Your task to perform on an android device: Show me popular games on the Play Store Image 0: 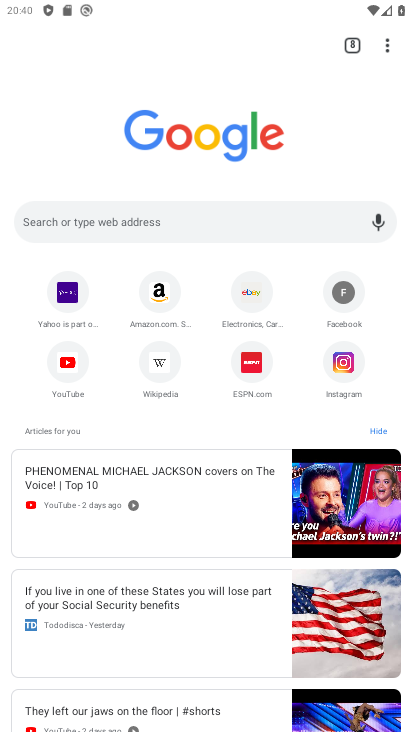
Step 0: press home button
Your task to perform on an android device: Show me popular games on the Play Store Image 1: 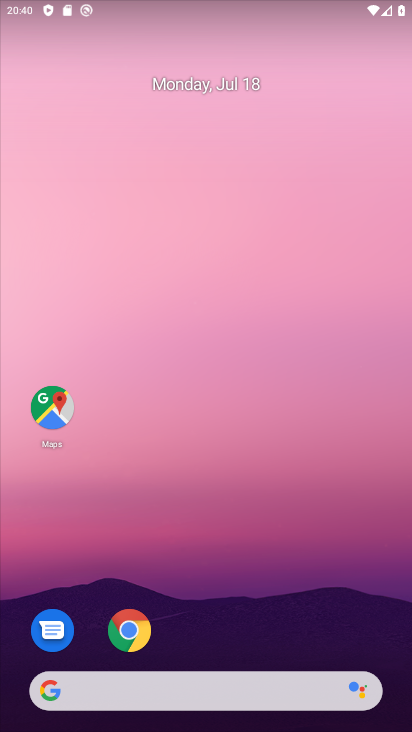
Step 1: drag from (239, 649) to (247, 249)
Your task to perform on an android device: Show me popular games on the Play Store Image 2: 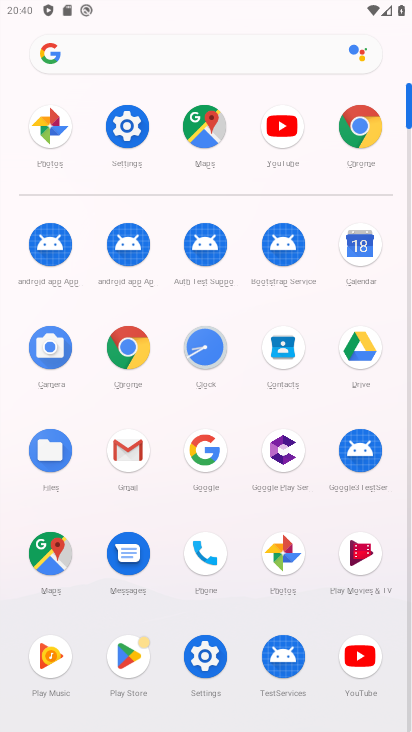
Step 2: click (114, 647)
Your task to perform on an android device: Show me popular games on the Play Store Image 3: 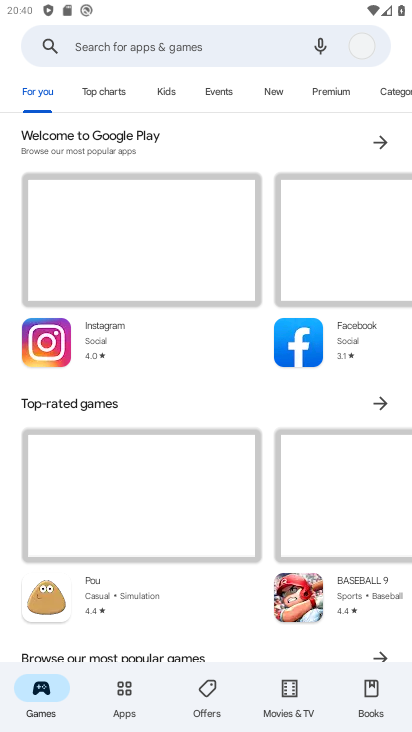
Step 3: click (99, 700)
Your task to perform on an android device: Show me popular games on the Play Store Image 4: 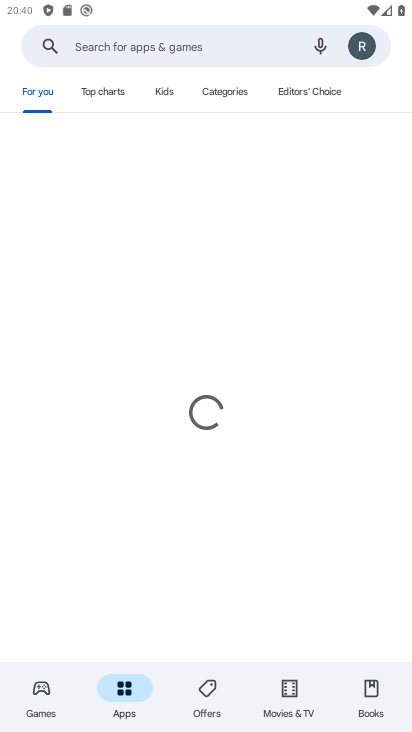
Step 4: click (45, 697)
Your task to perform on an android device: Show me popular games on the Play Store Image 5: 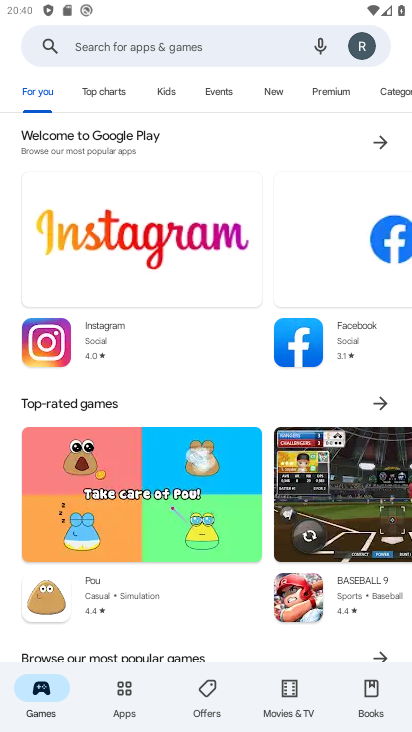
Step 5: click (42, 692)
Your task to perform on an android device: Show me popular games on the Play Store Image 6: 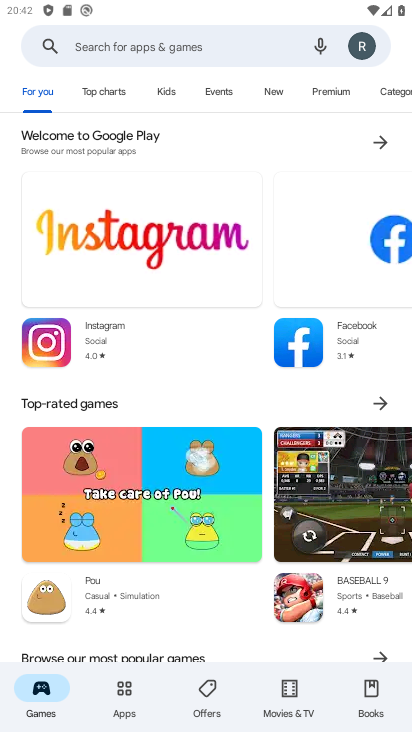
Step 6: task complete